Your task to perform on an android device: Go to Maps Image 0: 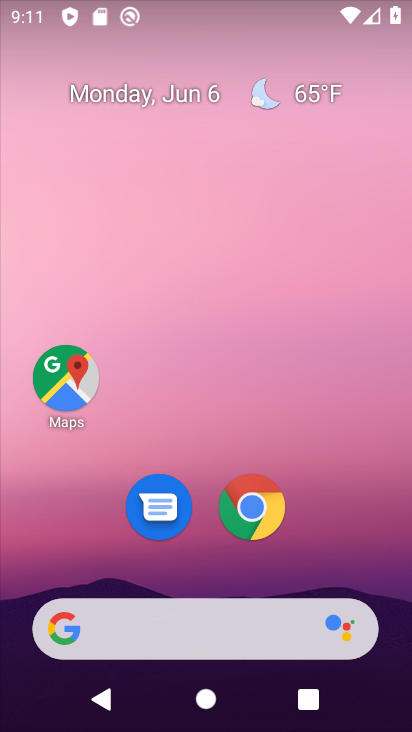
Step 0: click (75, 367)
Your task to perform on an android device: Go to Maps Image 1: 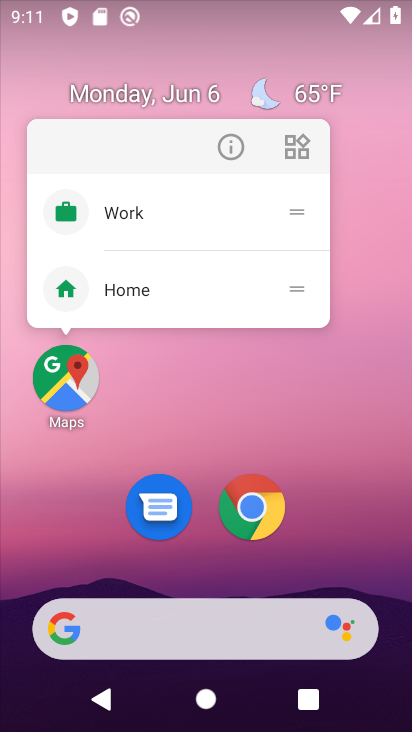
Step 1: click (75, 367)
Your task to perform on an android device: Go to Maps Image 2: 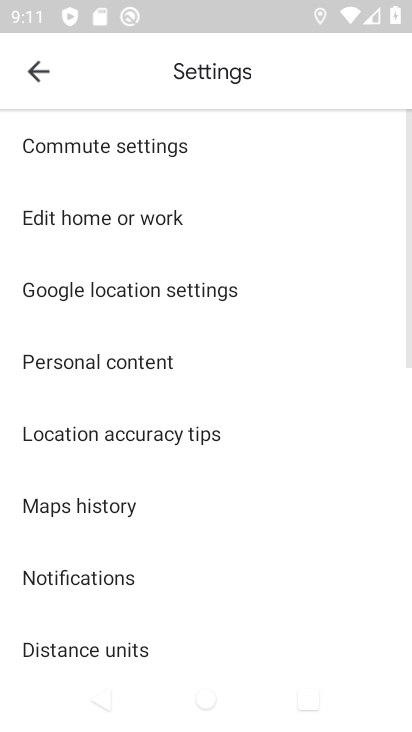
Step 2: click (41, 63)
Your task to perform on an android device: Go to Maps Image 3: 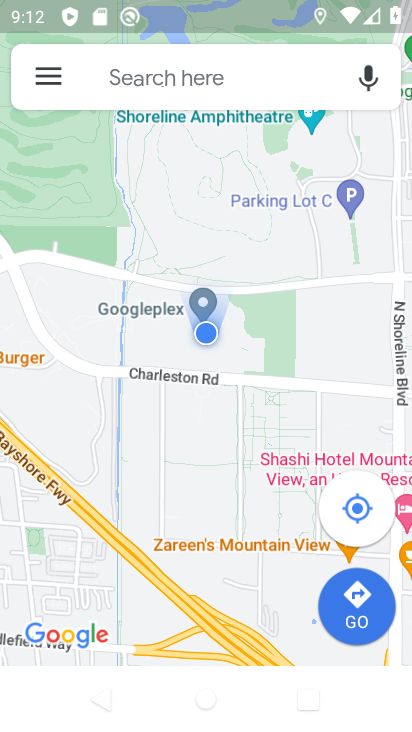
Step 3: task complete